Your task to perform on an android device: Open settings on Google Maps Image 0: 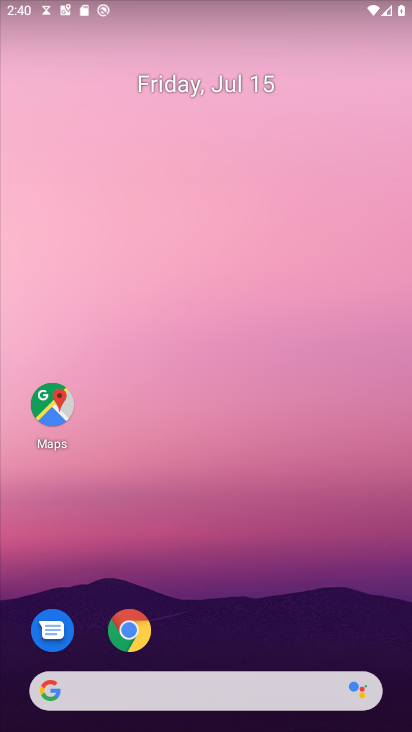
Step 0: drag from (228, 544) to (279, 4)
Your task to perform on an android device: Open settings on Google Maps Image 1: 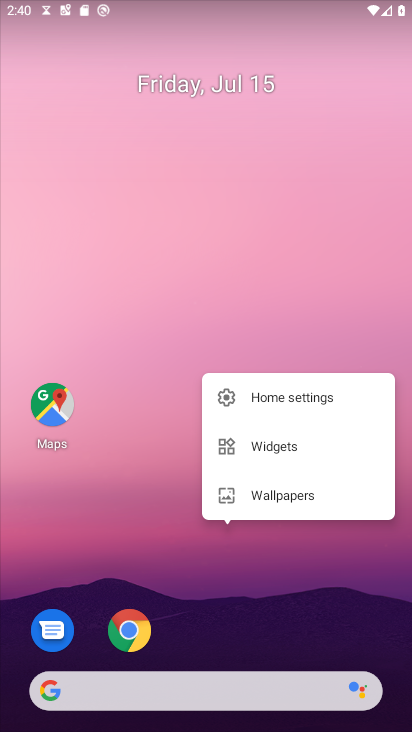
Step 1: click (164, 233)
Your task to perform on an android device: Open settings on Google Maps Image 2: 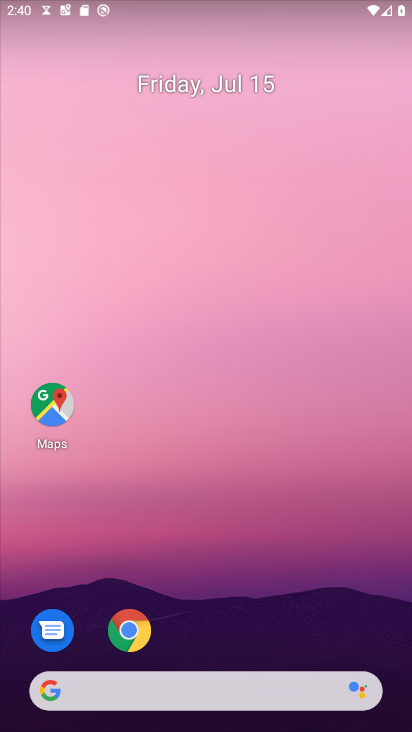
Step 2: drag from (276, 584) to (212, 56)
Your task to perform on an android device: Open settings on Google Maps Image 3: 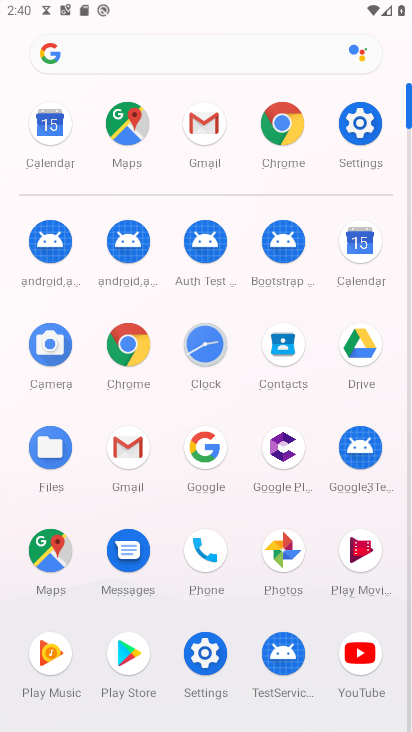
Step 3: click (44, 582)
Your task to perform on an android device: Open settings on Google Maps Image 4: 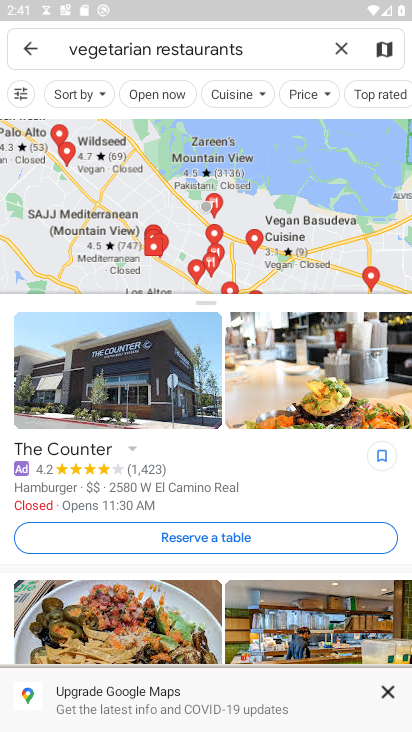
Step 4: task complete